Your task to perform on an android device: turn off priority inbox in the gmail app Image 0: 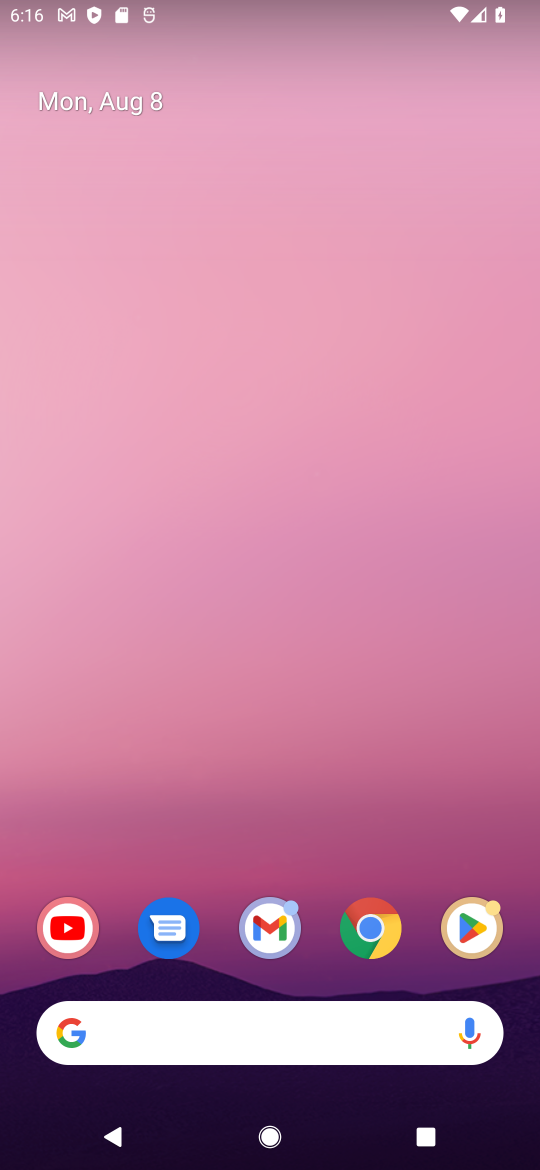
Step 0: click (268, 938)
Your task to perform on an android device: turn off priority inbox in the gmail app Image 1: 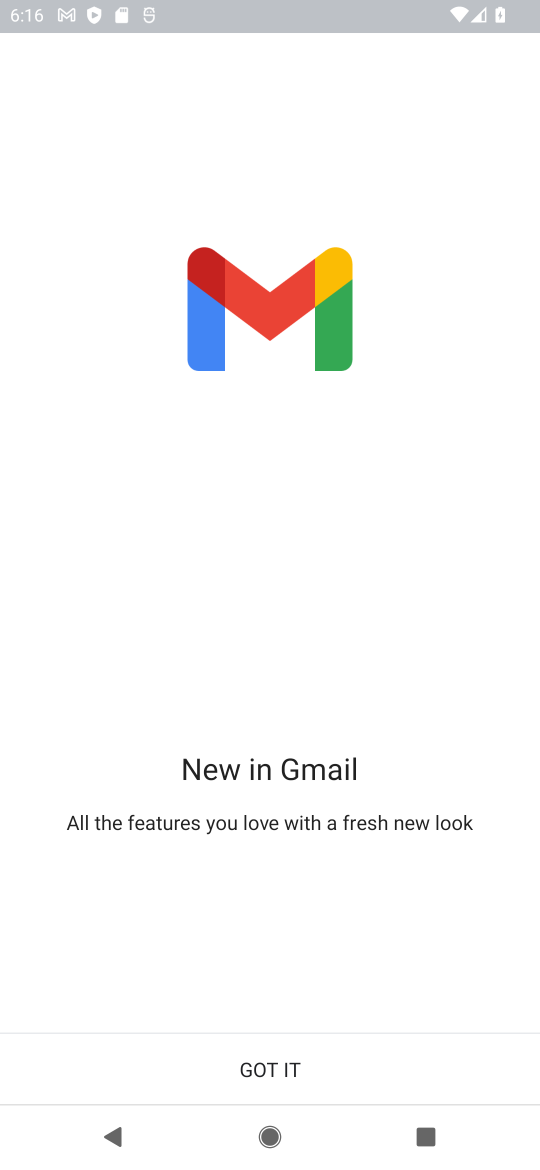
Step 1: click (315, 1081)
Your task to perform on an android device: turn off priority inbox in the gmail app Image 2: 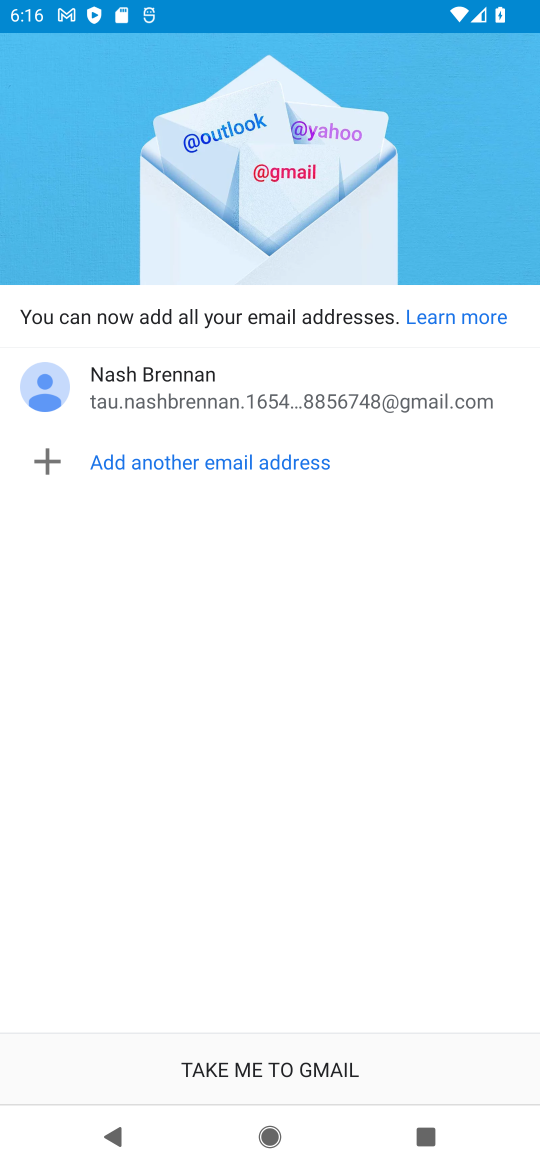
Step 2: click (300, 1068)
Your task to perform on an android device: turn off priority inbox in the gmail app Image 3: 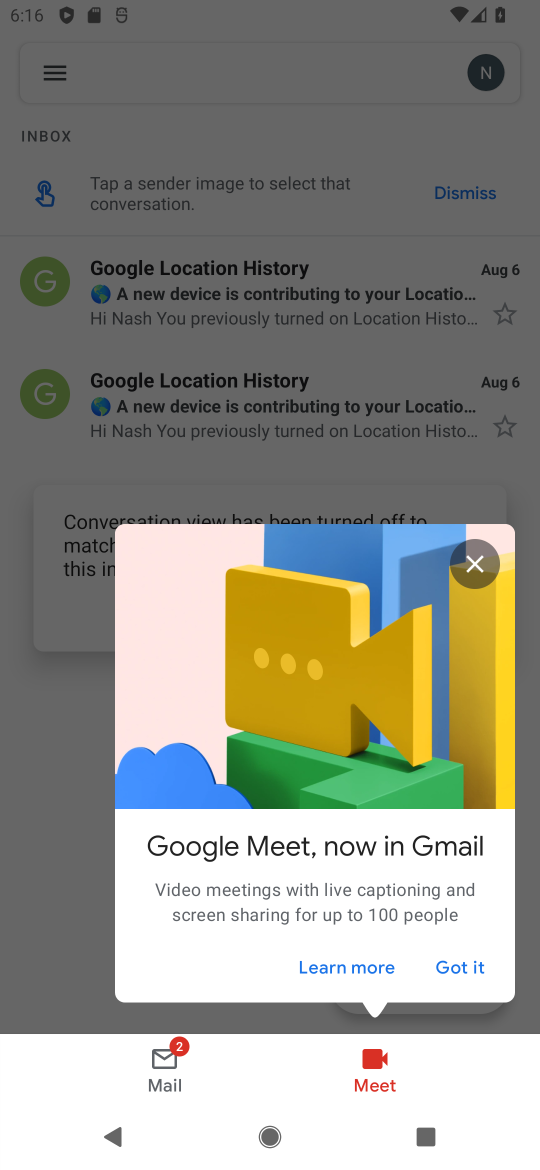
Step 3: click (476, 560)
Your task to perform on an android device: turn off priority inbox in the gmail app Image 4: 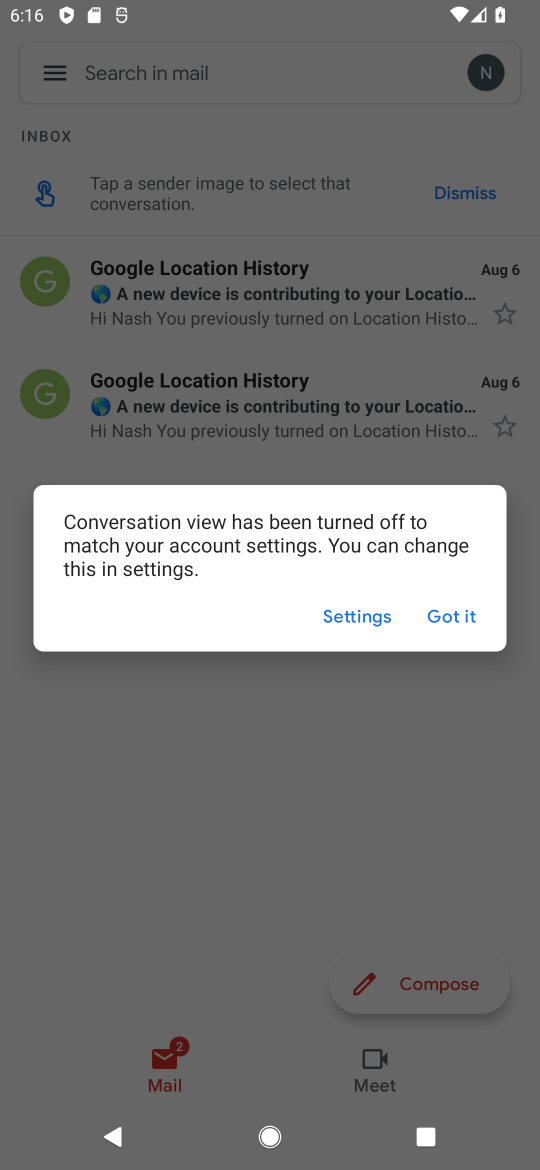
Step 4: click (443, 618)
Your task to perform on an android device: turn off priority inbox in the gmail app Image 5: 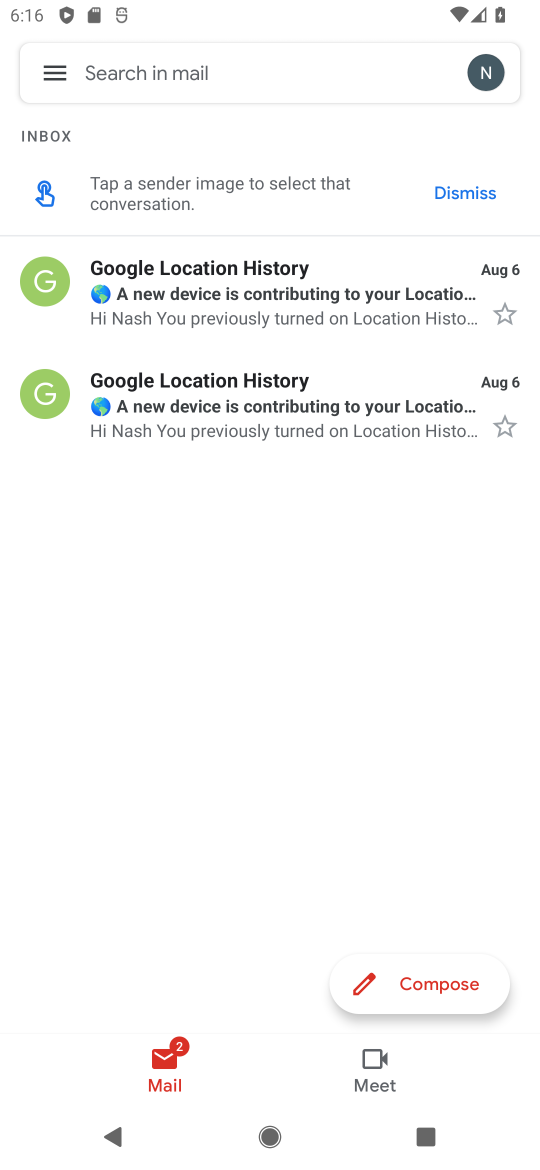
Step 5: click (63, 71)
Your task to perform on an android device: turn off priority inbox in the gmail app Image 6: 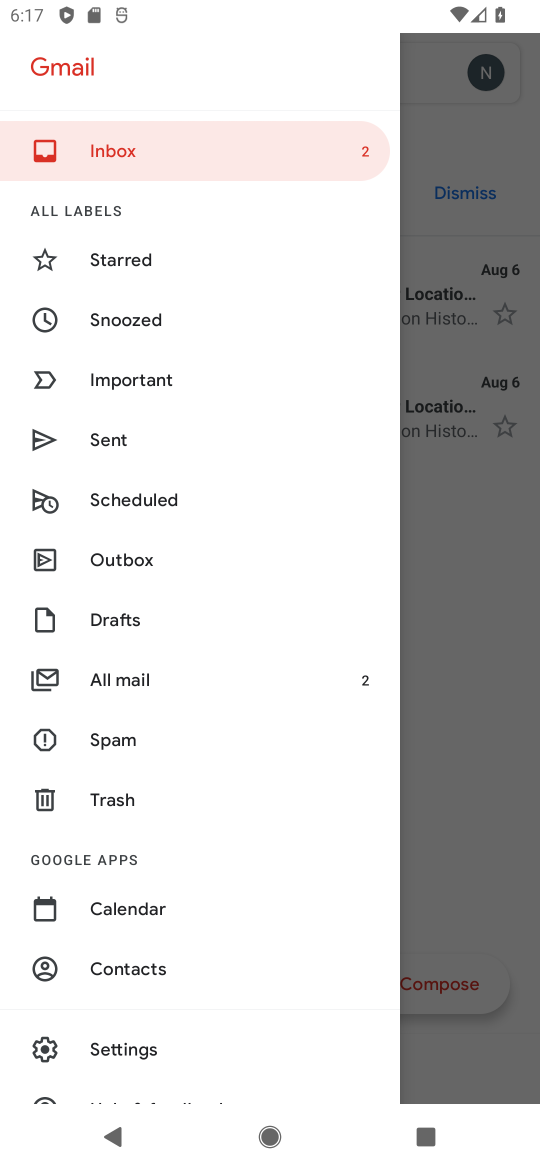
Step 6: click (126, 1044)
Your task to perform on an android device: turn off priority inbox in the gmail app Image 7: 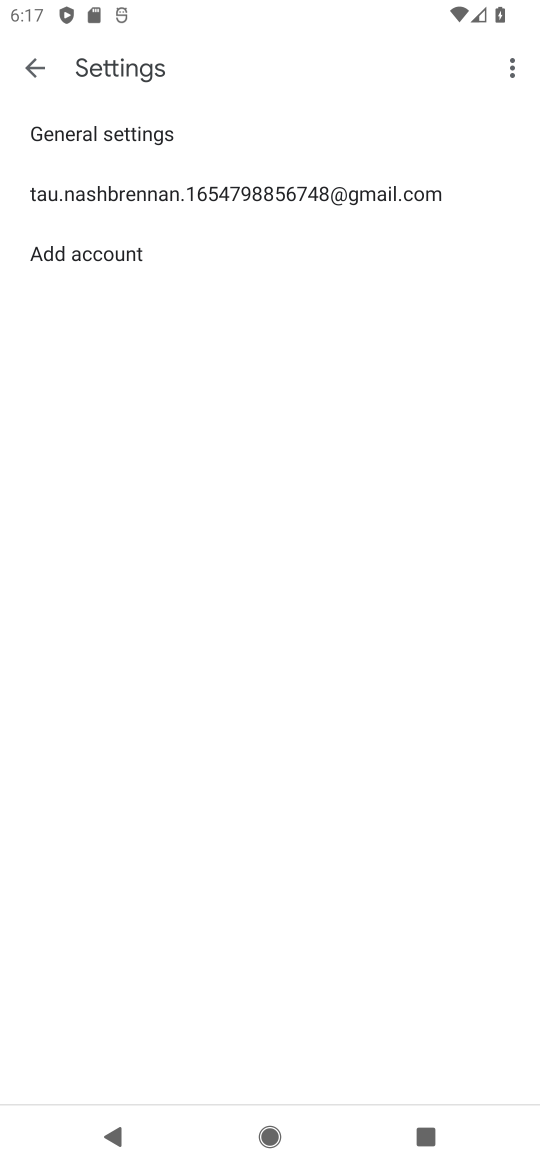
Step 7: click (190, 180)
Your task to perform on an android device: turn off priority inbox in the gmail app Image 8: 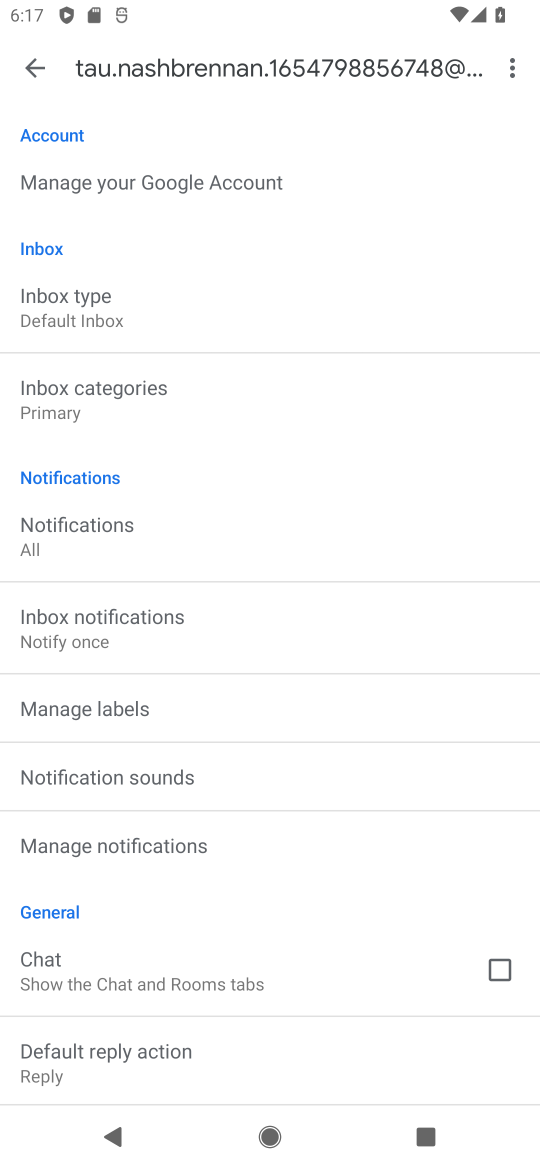
Step 8: click (85, 326)
Your task to perform on an android device: turn off priority inbox in the gmail app Image 9: 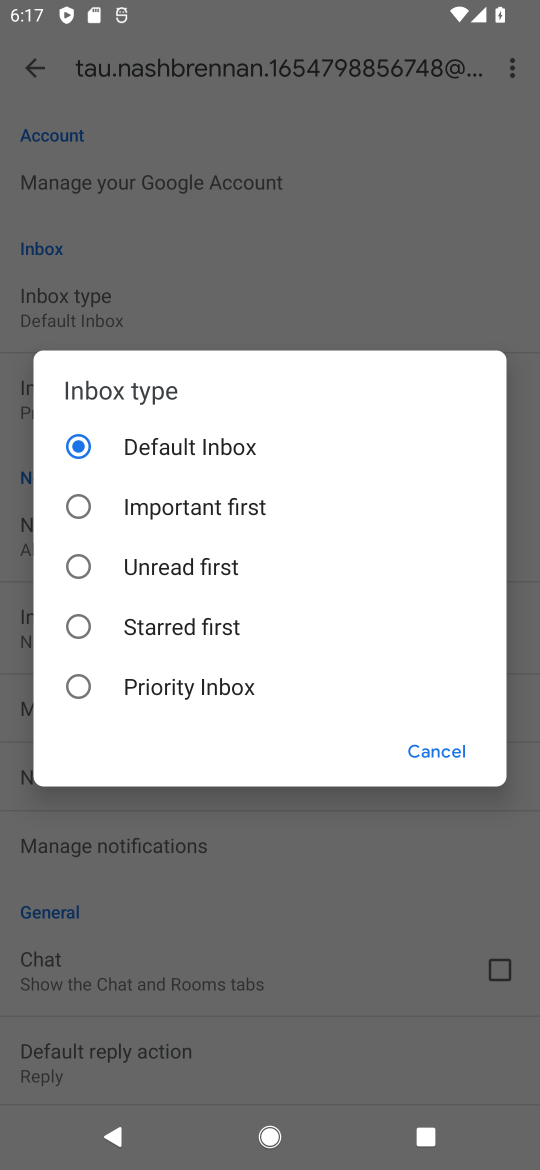
Step 9: click (155, 685)
Your task to perform on an android device: turn off priority inbox in the gmail app Image 10: 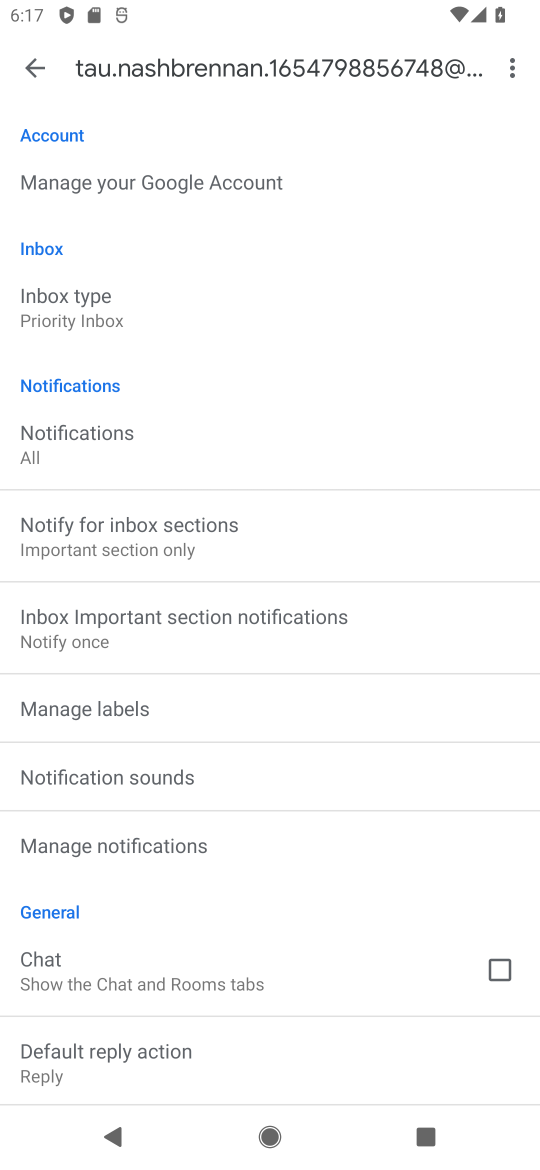
Step 10: task complete